Your task to perform on an android device: make emails show in primary in the gmail app Image 0: 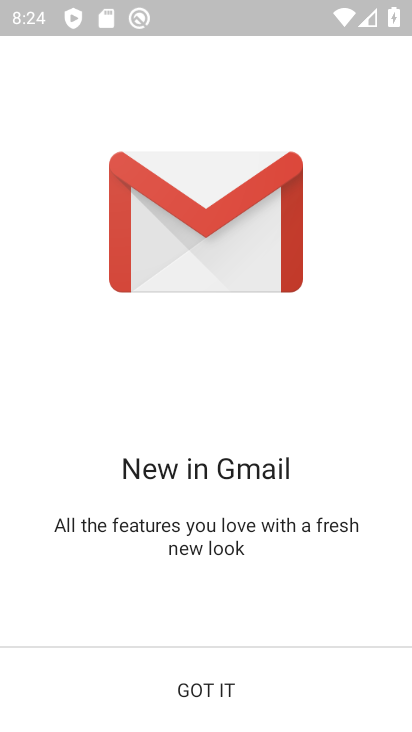
Step 0: click (191, 692)
Your task to perform on an android device: make emails show in primary in the gmail app Image 1: 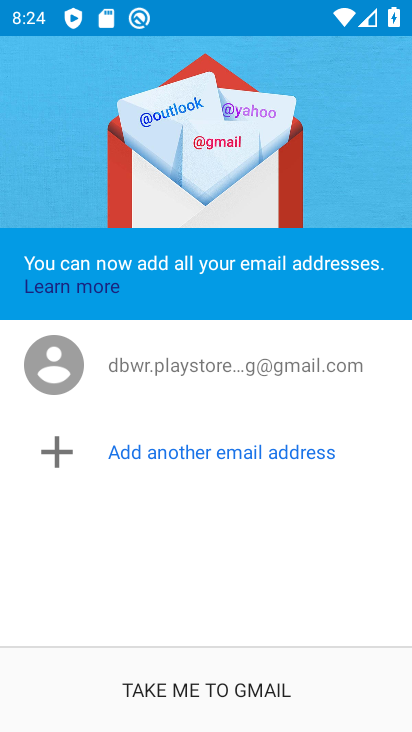
Step 1: click (198, 729)
Your task to perform on an android device: make emails show in primary in the gmail app Image 2: 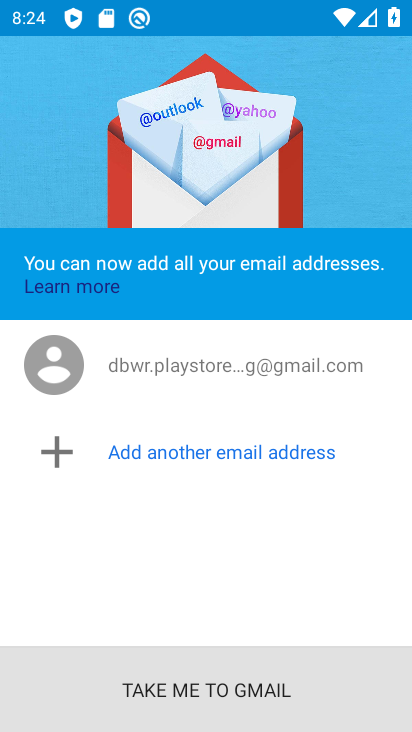
Step 2: click (196, 708)
Your task to perform on an android device: make emails show in primary in the gmail app Image 3: 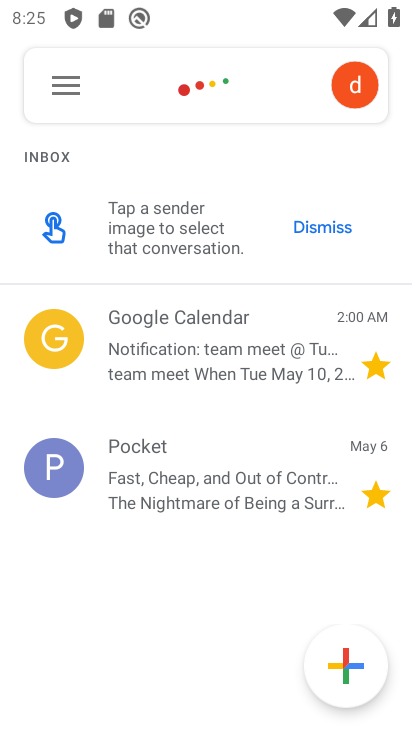
Step 3: click (68, 80)
Your task to perform on an android device: make emails show in primary in the gmail app Image 4: 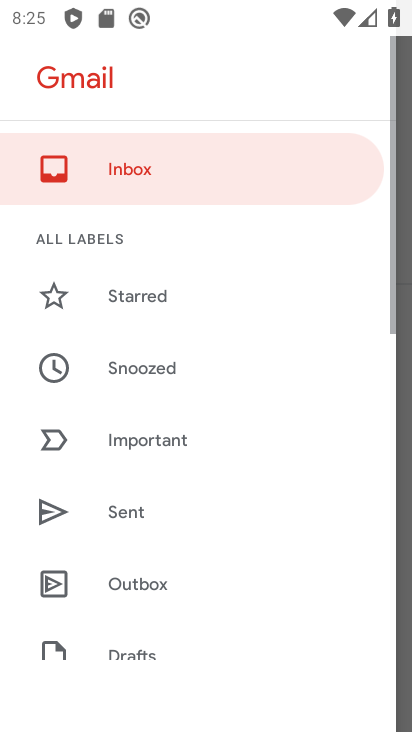
Step 4: drag from (188, 575) to (223, 210)
Your task to perform on an android device: make emails show in primary in the gmail app Image 5: 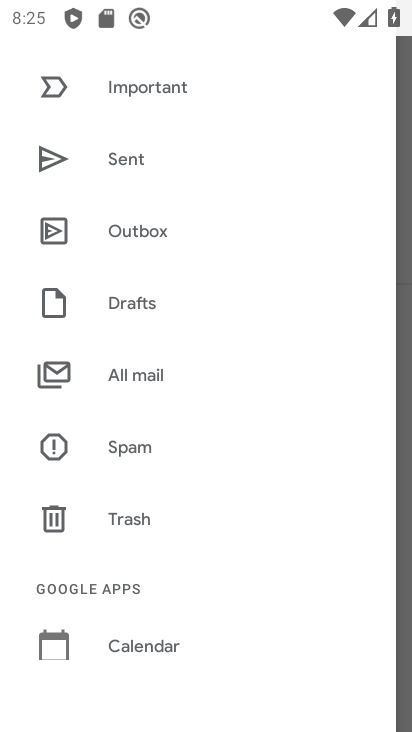
Step 5: drag from (221, 598) to (230, 149)
Your task to perform on an android device: make emails show in primary in the gmail app Image 6: 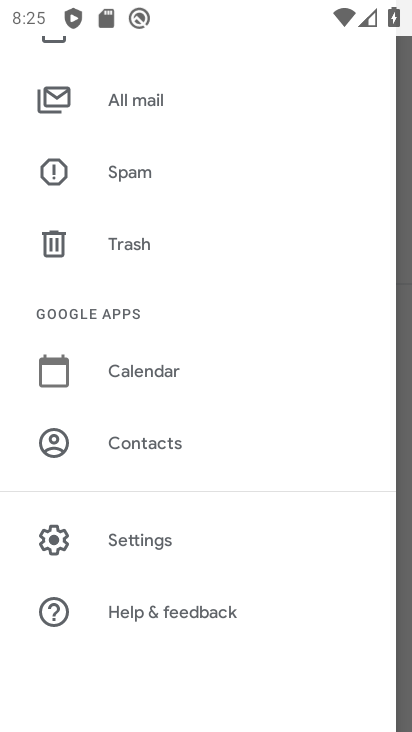
Step 6: click (80, 543)
Your task to perform on an android device: make emails show in primary in the gmail app Image 7: 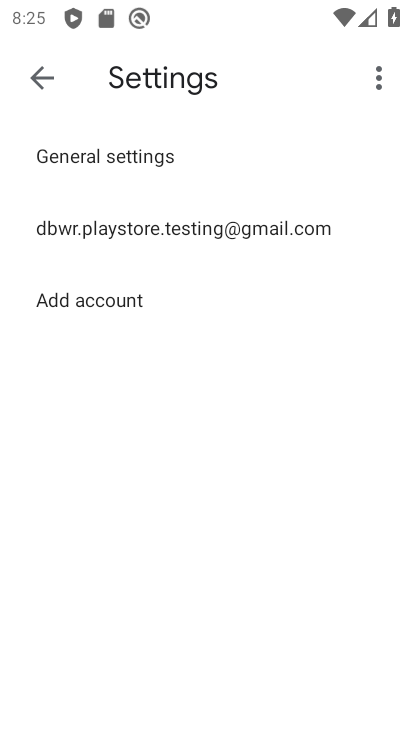
Step 7: click (117, 245)
Your task to perform on an android device: make emails show in primary in the gmail app Image 8: 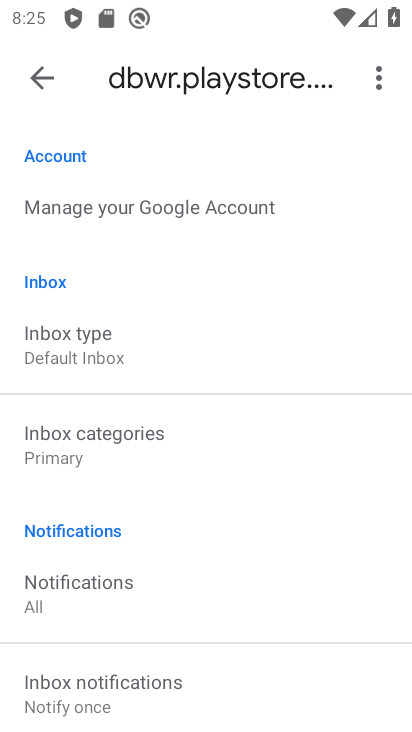
Step 8: click (111, 350)
Your task to perform on an android device: make emails show in primary in the gmail app Image 9: 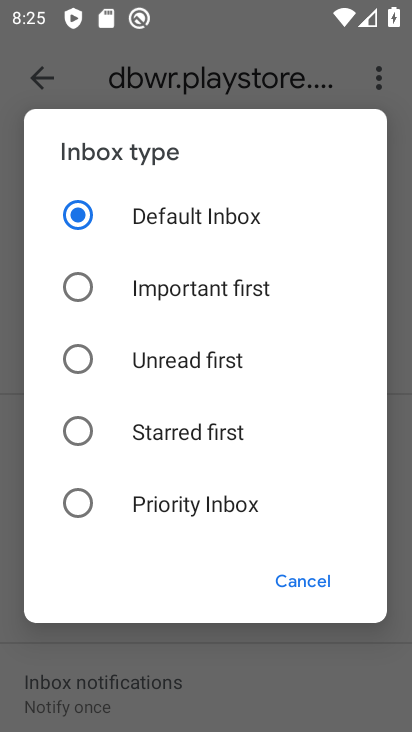
Step 9: click (294, 587)
Your task to perform on an android device: make emails show in primary in the gmail app Image 10: 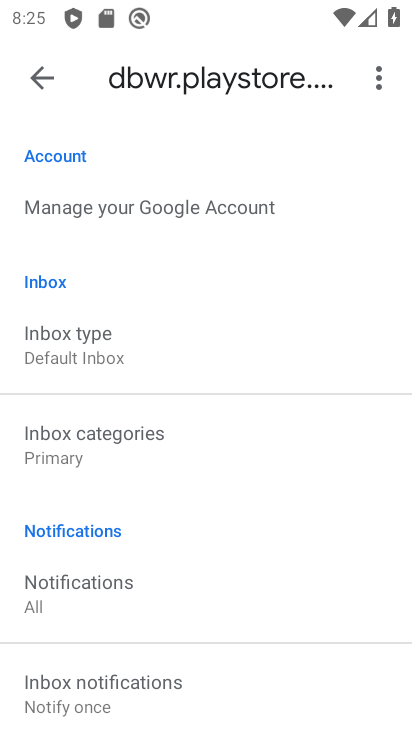
Step 10: task complete